Your task to perform on an android device: check google app version Image 0: 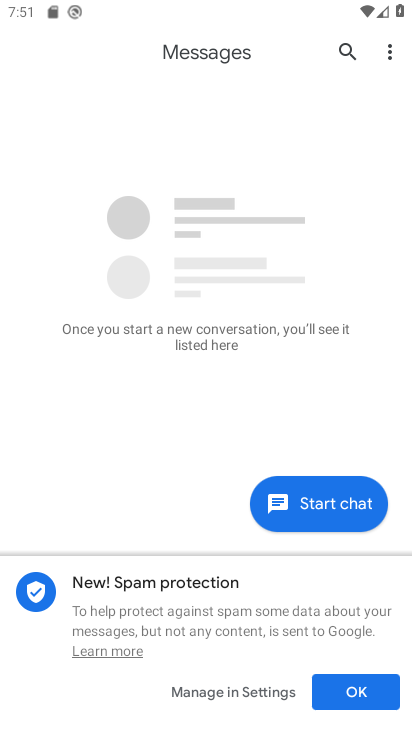
Step 0: press back button
Your task to perform on an android device: check google app version Image 1: 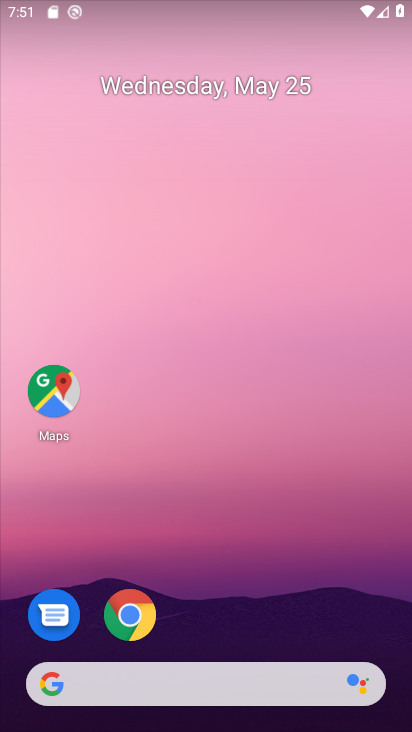
Step 1: drag from (197, 526) to (194, 4)
Your task to perform on an android device: check google app version Image 2: 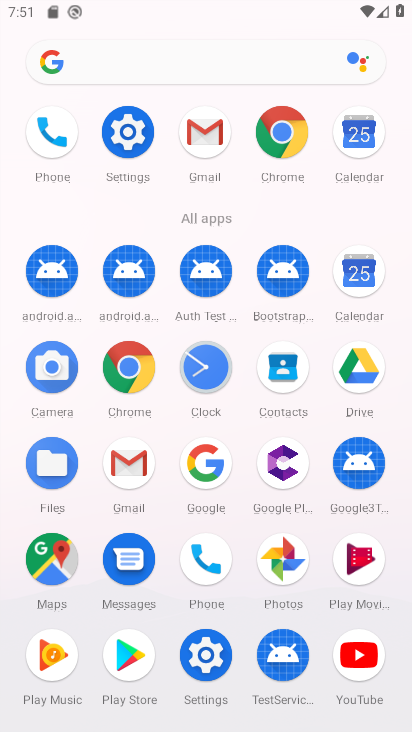
Step 2: drag from (9, 560) to (37, 286)
Your task to perform on an android device: check google app version Image 3: 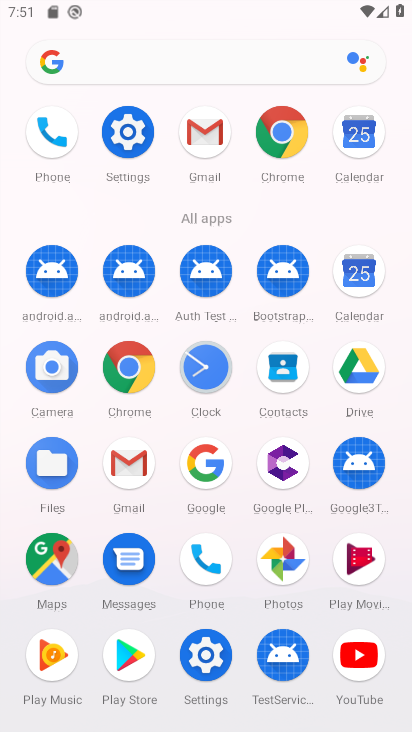
Step 3: click (201, 461)
Your task to perform on an android device: check google app version Image 4: 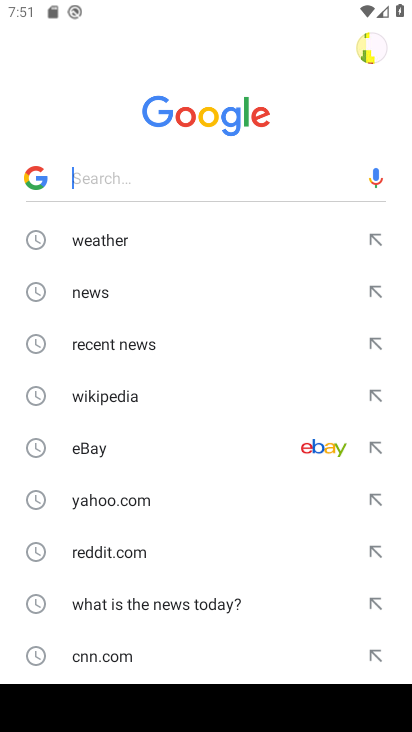
Step 4: click (364, 41)
Your task to perform on an android device: check google app version Image 5: 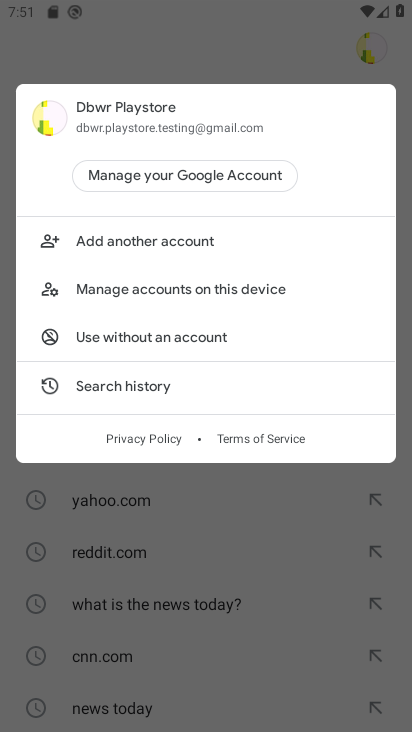
Step 5: click (182, 498)
Your task to perform on an android device: check google app version Image 6: 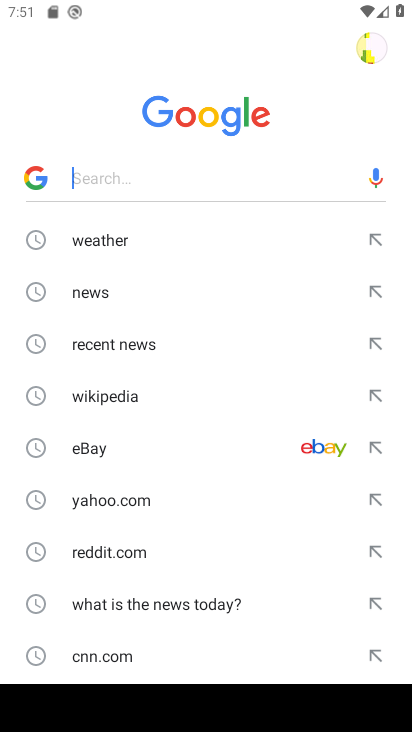
Step 6: press back button
Your task to perform on an android device: check google app version Image 7: 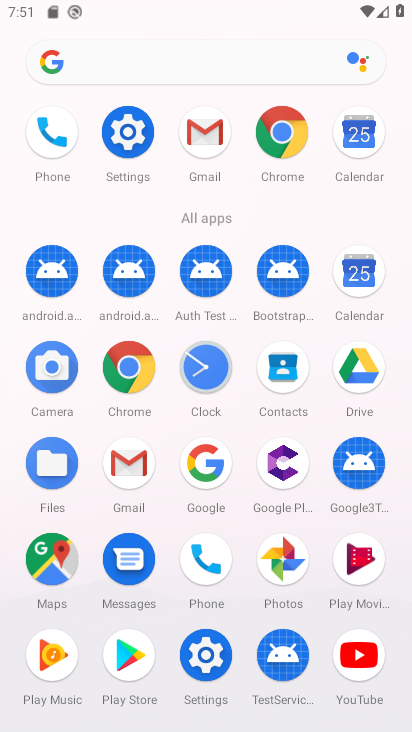
Step 7: click (206, 456)
Your task to perform on an android device: check google app version Image 8: 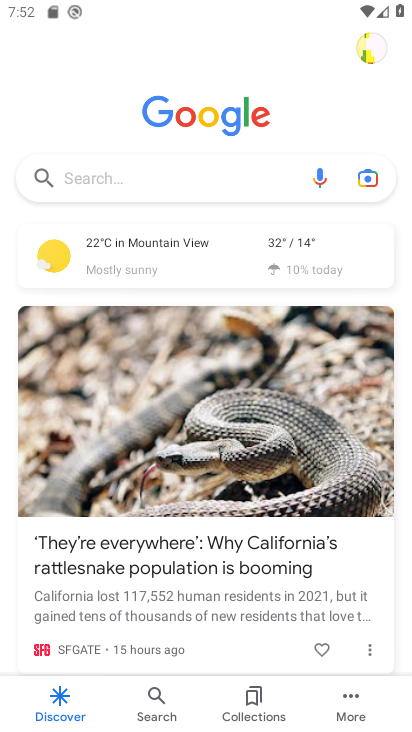
Step 8: click (350, 692)
Your task to perform on an android device: check google app version Image 9: 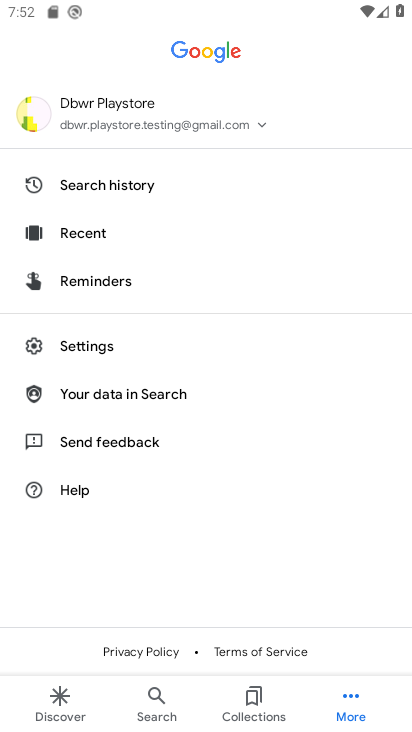
Step 9: click (109, 343)
Your task to perform on an android device: check google app version Image 10: 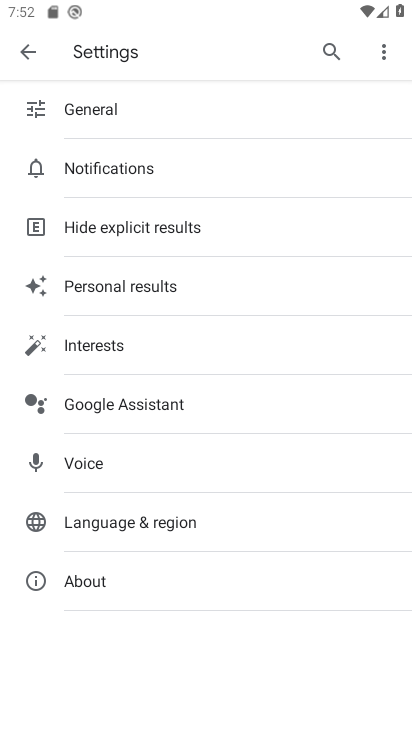
Step 10: click (99, 588)
Your task to perform on an android device: check google app version Image 11: 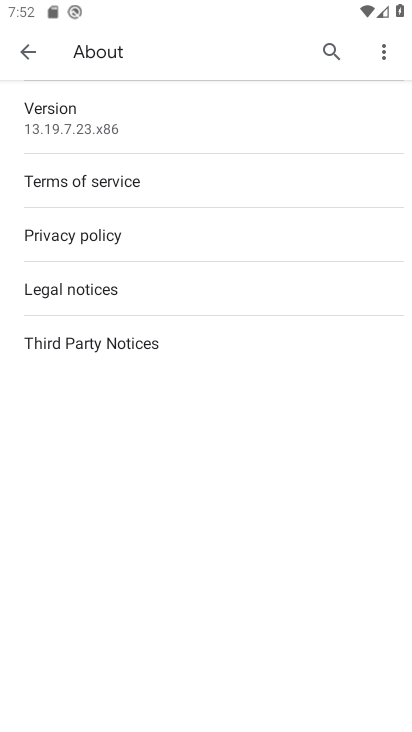
Step 11: task complete